Your task to perform on an android device: change timer sound Image 0: 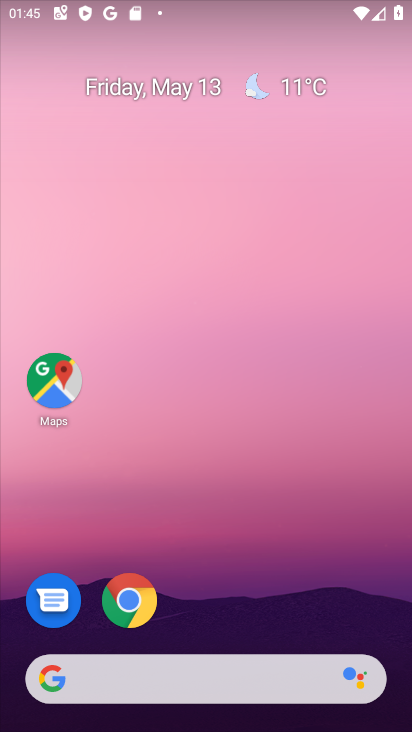
Step 0: drag from (227, 612) to (262, 137)
Your task to perform on an android device: change timer sound Image 1: 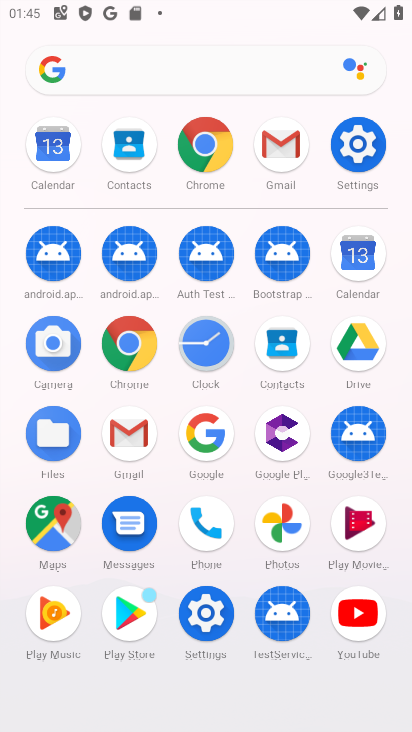
Step 1: click (202, 348)
Your task to perform on an android device: change timer sound Image 2: 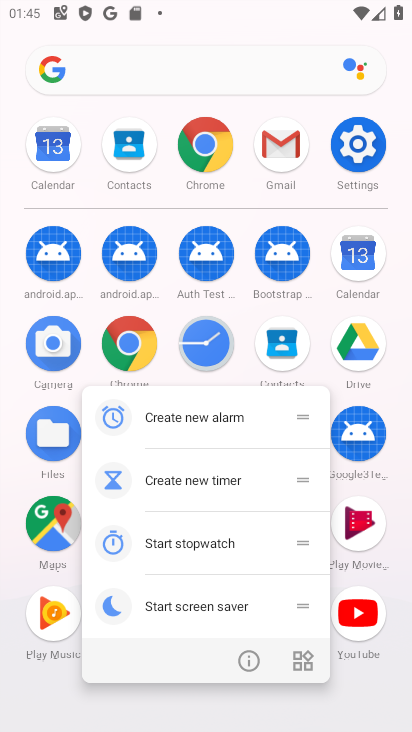
Step 2: click (255, 658)
Your task to perform on an android device: change timer sound Image 3: 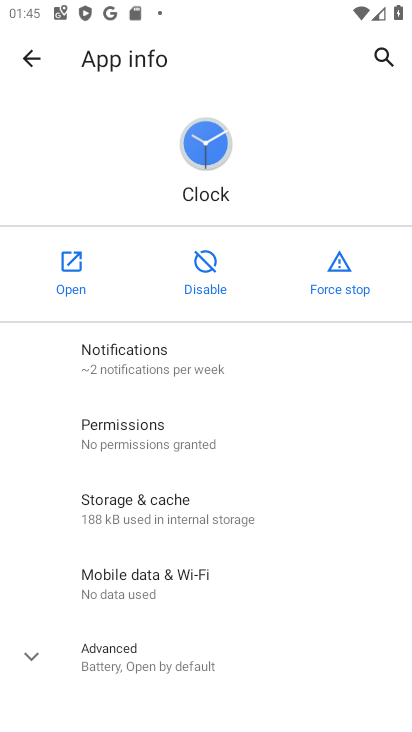
Step 3: click (82, 277)
Your task to perform on an android device: change timer sound Image 4: 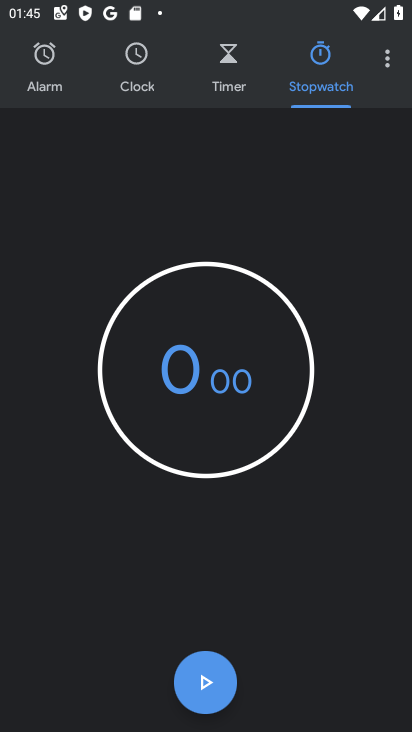
Step 4: click (387, 62)
Your task to perform on an android device: change timer sound Image 5: 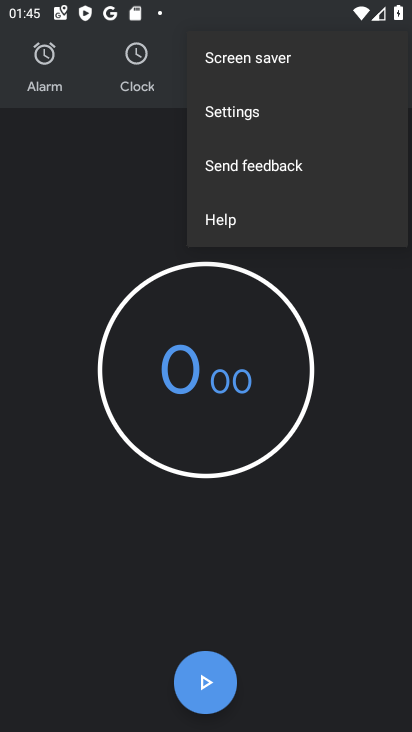
Step 5: click (96, 181)
Your task to perform on an android device: change timer sound Image 6: 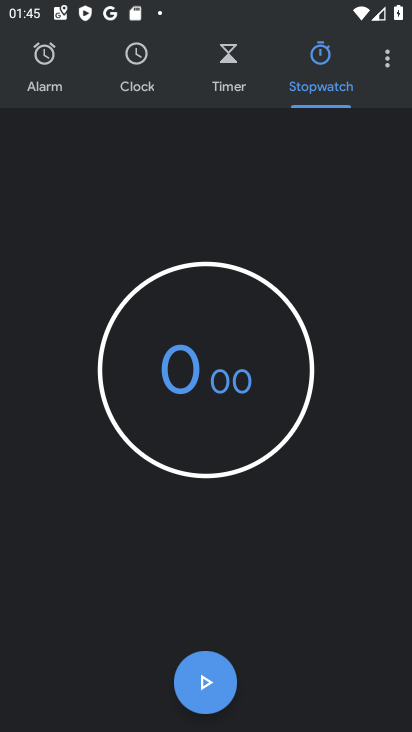
Step 6: click (232, 79)
Your task to perform on an android device: change timer sound Image 7: 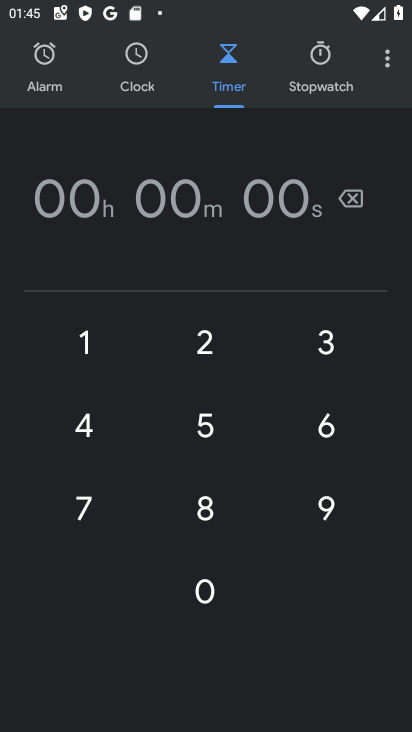
Step 7: click (384, 67)
Your task to perform on an android device: change timer sound Image 8: 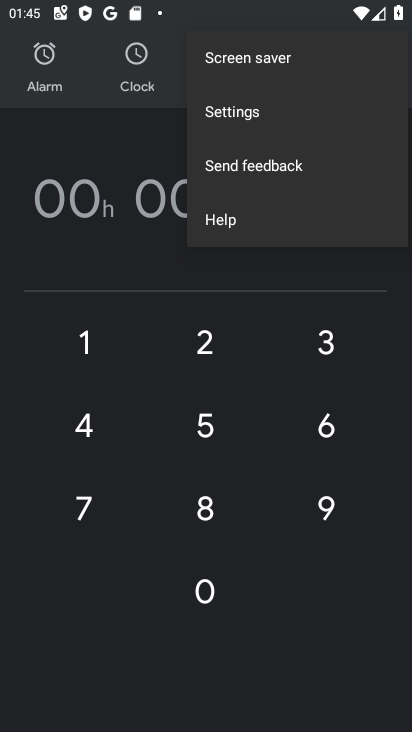
Step 8: click (275, 123)
Your task to perform on an android device: change timer sound Image 9: 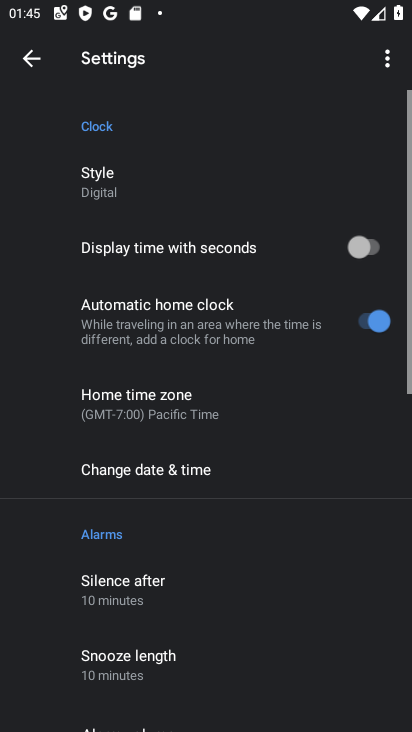
Step 9: drag from (244, 456) to (267, 113)
Your task to perform on an android device: change timer sound Image 10: 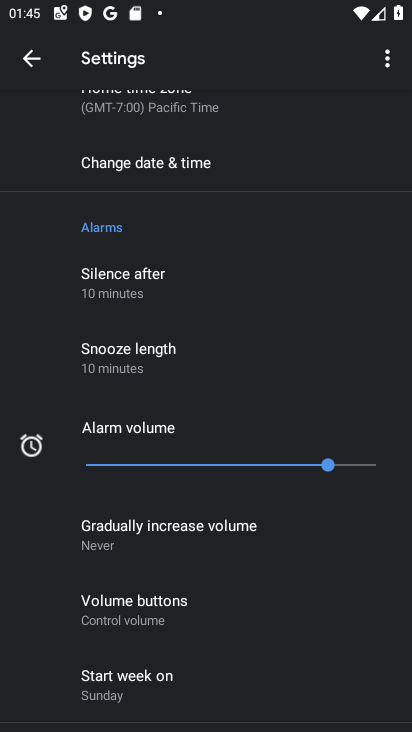
Step 10: drag from (230, 660) to (283, 218)
Your task to perform on an android device: change timer sound Image 11: 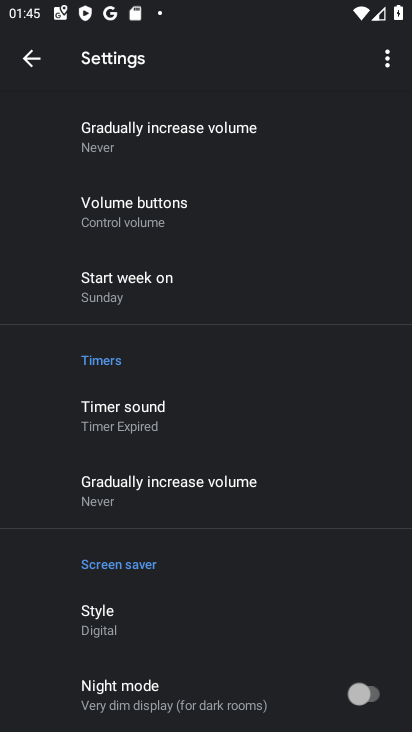
Step 11: click (163, 419)
Your task to perform on an android device: change timer sound Image 12: 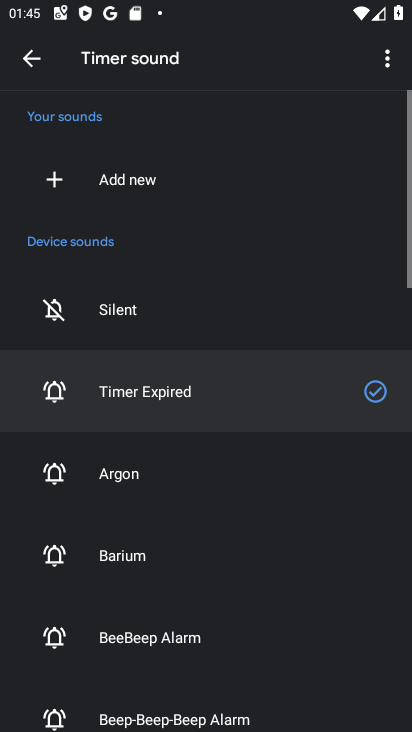
Step 12: click (191, 485)
Your task to perform on an android device: change timer sound Image 13: 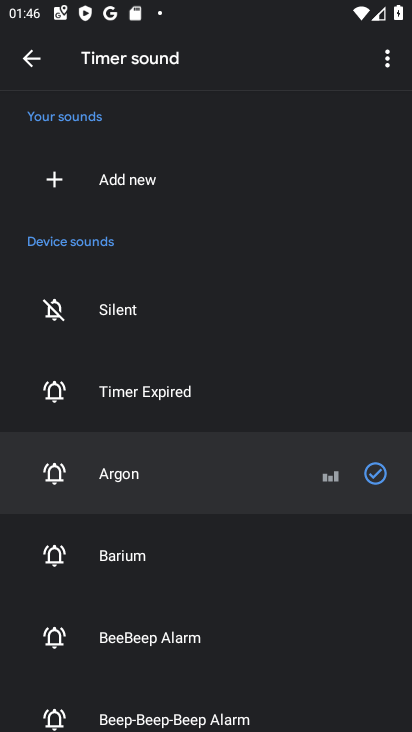
Step 13: task complete